Your task to perform on an android device: Show me popular videos on Youtube Image 0: 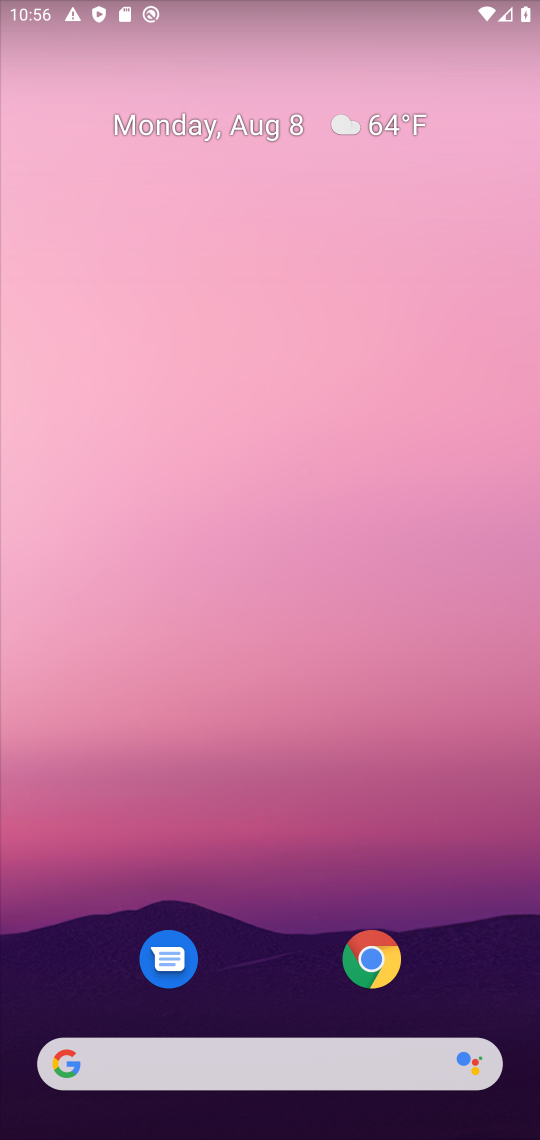
Step 0: press home button
Your task to perform on an android device: Show me popular videos on Youtube Image 1: 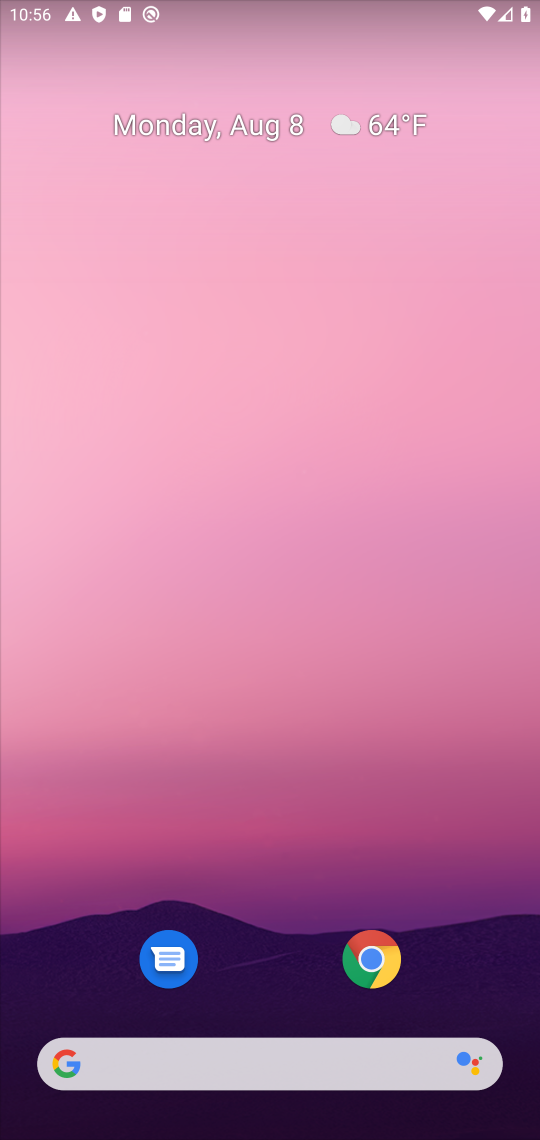
Step 1: drag from (491, 976) to (357, 71)
Your task to perform on an android device: Show me popular videos on Youtube Image 2: 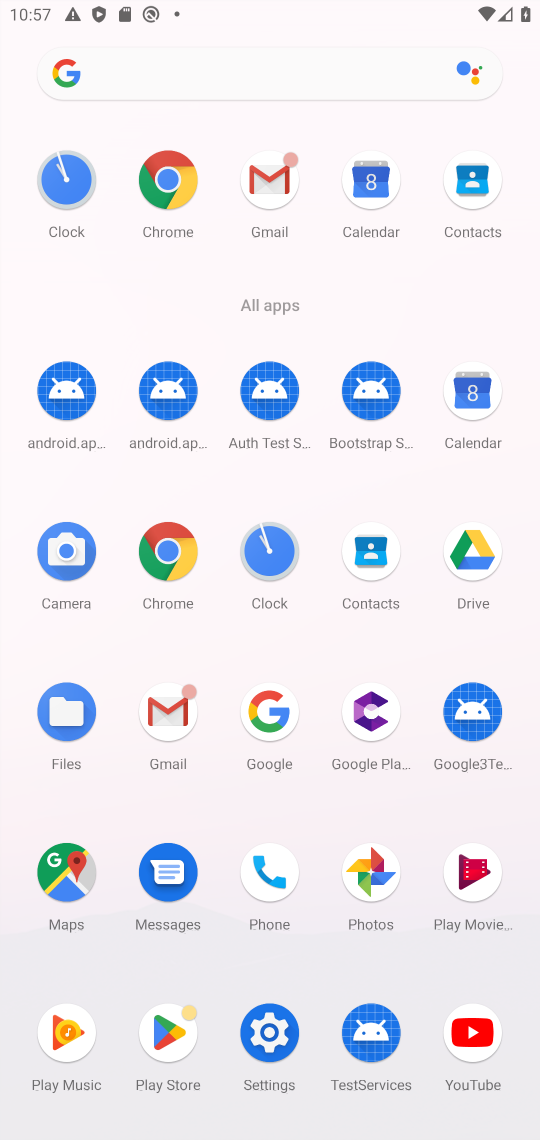
Step 2: click (488, 1038)
Your task to perform on an android device: Show me popular videos on Youtube Image 3: 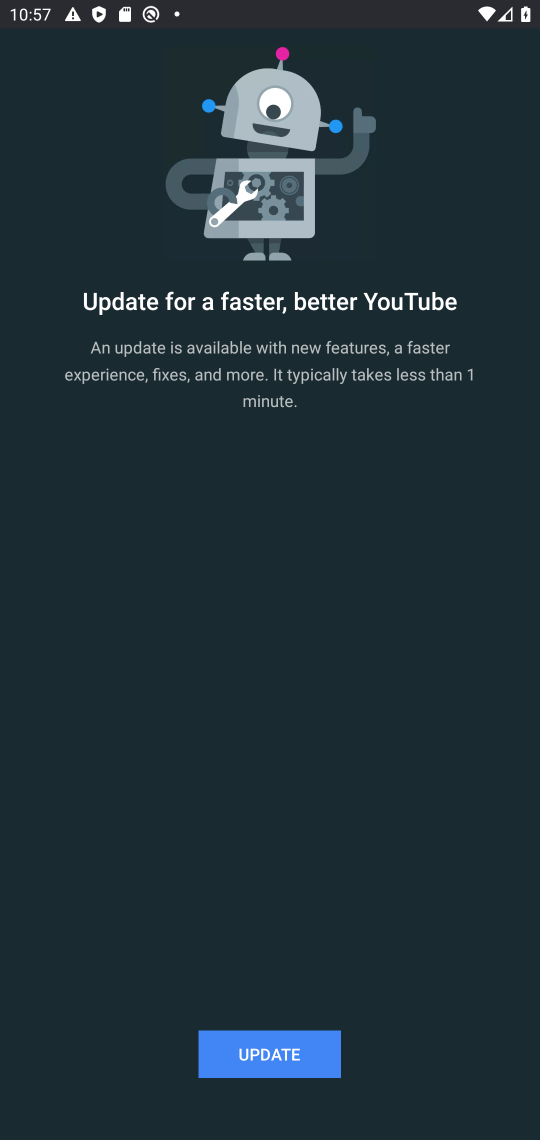
Step 3: click (265, 1049)
Your task to perform on an android device: Show me popular videos on Youtube Image 4: 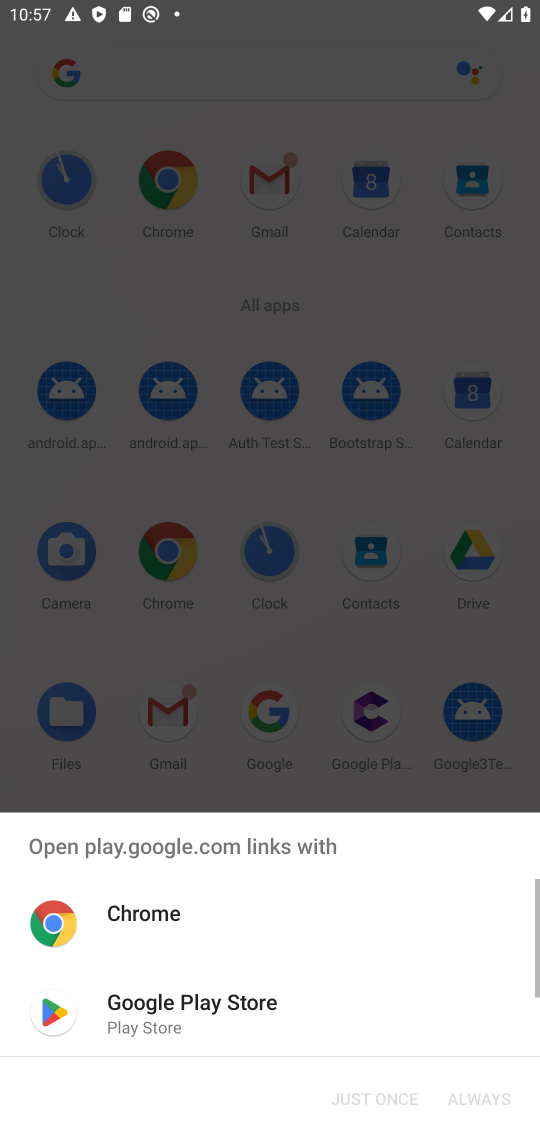
Step 4: click (292, 1027)
Your task to perform on an android device: Show me popular videos on Youtube Image 5: 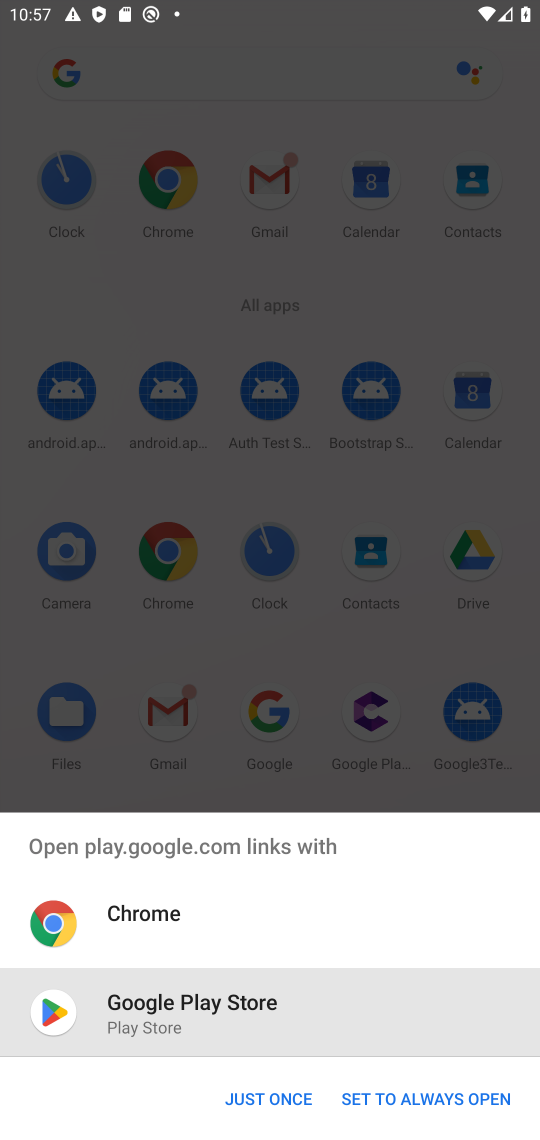
Step 5: click (281, 1098)
Your task to perform on an android device: Show me popular videos on Youtube Image 6: 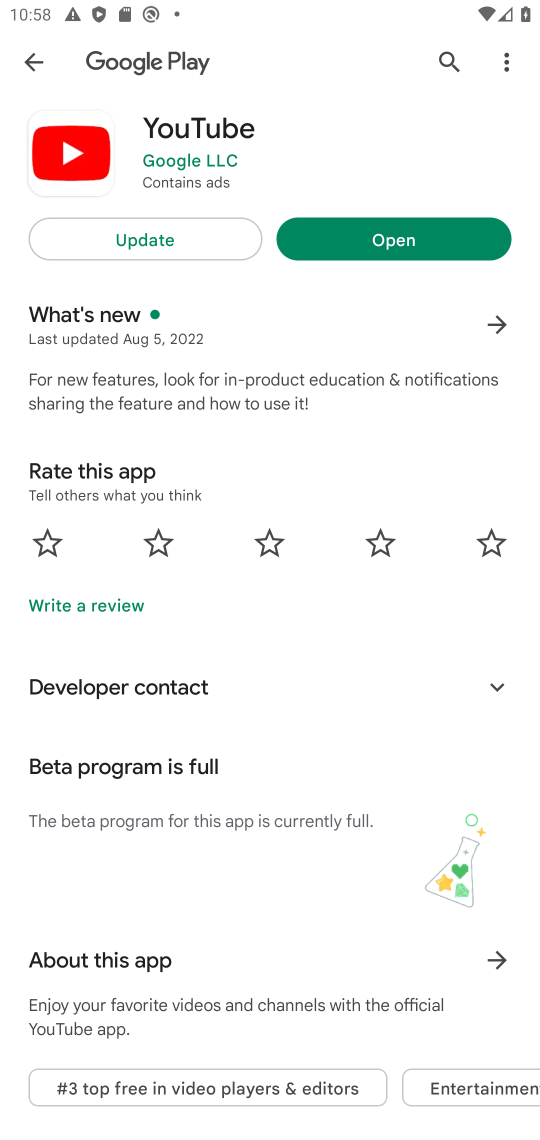
Step 6: click (126, 239)
Your task to perform on an android device: Show me popular videos on Youtube Image 7: 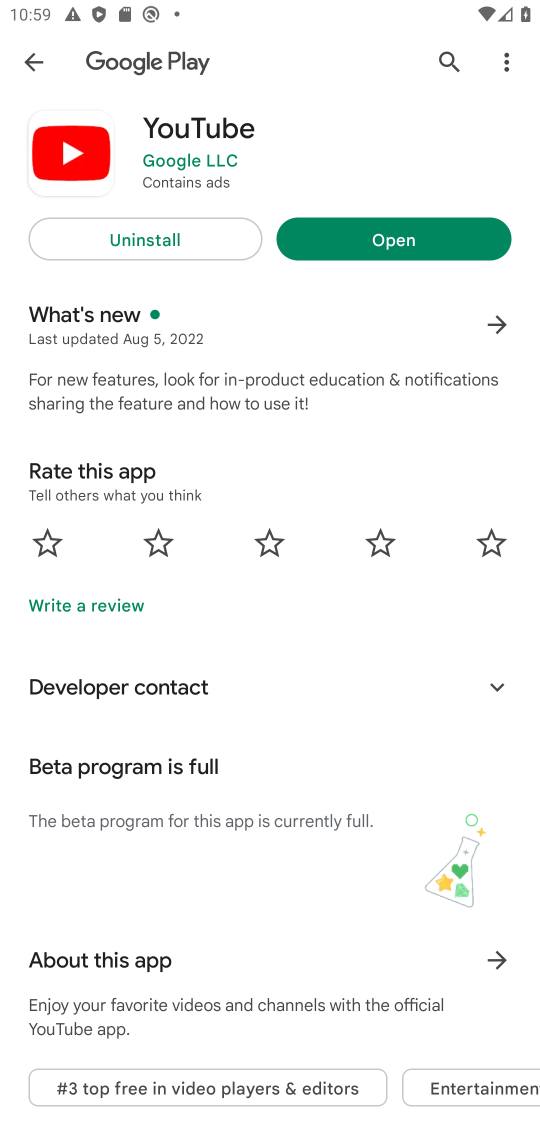
Step 7: click (469, 238)
Your task to perform on an android device: Show me popular videos on Youtube Image 8: 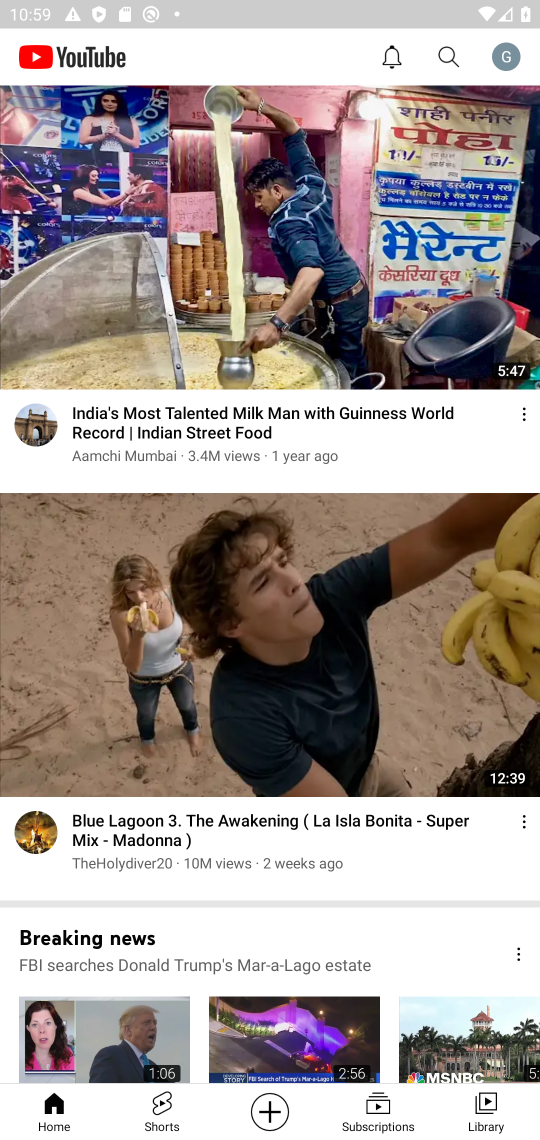
Step 8: task complete